Your task to perform on an android device: remove spam from my inbox in the gmail app Image 0: 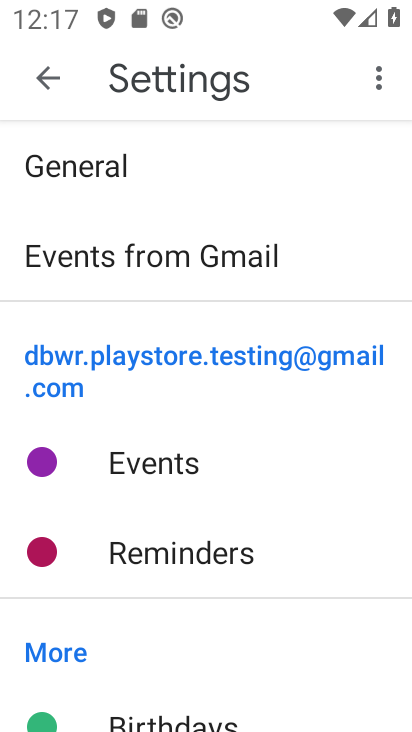
Step 0: press back button
Your task to perform on an android device: remove spam from my inbox in the gmail app Image 1: 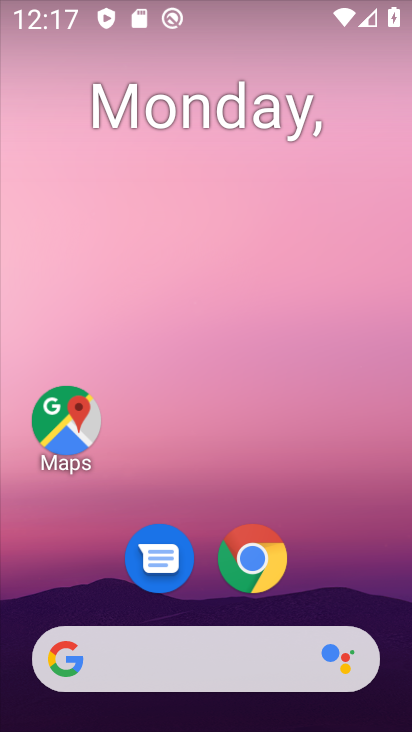
Step 1: drag from (353, 491) to (247, 14)
Your task to perform on an android device: remove spam from my inbox in the gmail app Image 2: 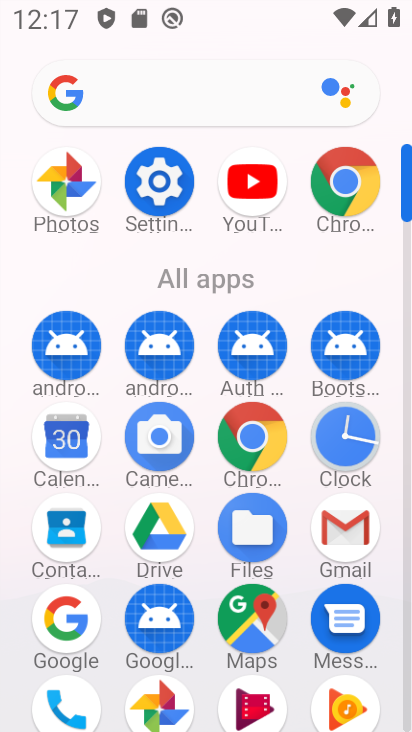
Step 2: drag from (17, 587) to (27, 271)
Your task to perform on an android device: remove spam from my inbox in the gmail app Image 3: 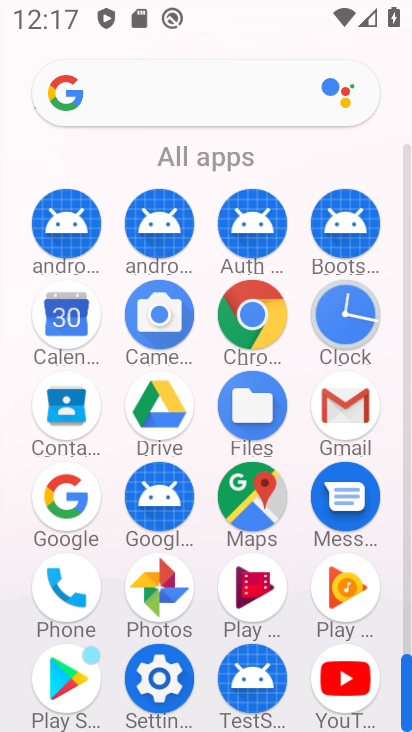
Step 3: click (345, 403)
Your task to perform on an android device: remove spam from my inbox in the gmail app Image 4: 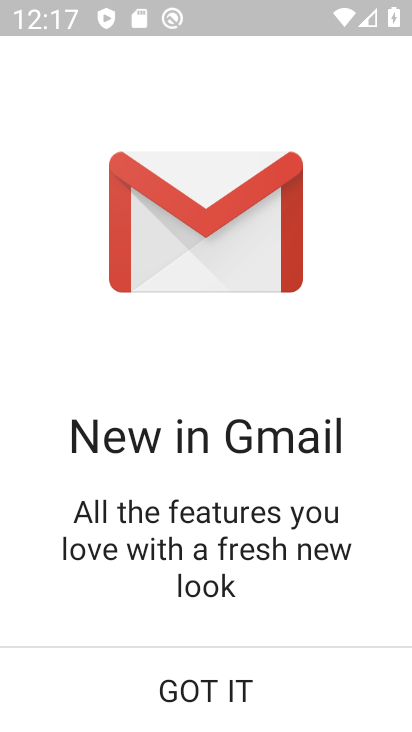
Step 4: click (219, 676)
Your task to perform on an android device: remove spam from my inbox in the gmail app Image 5: 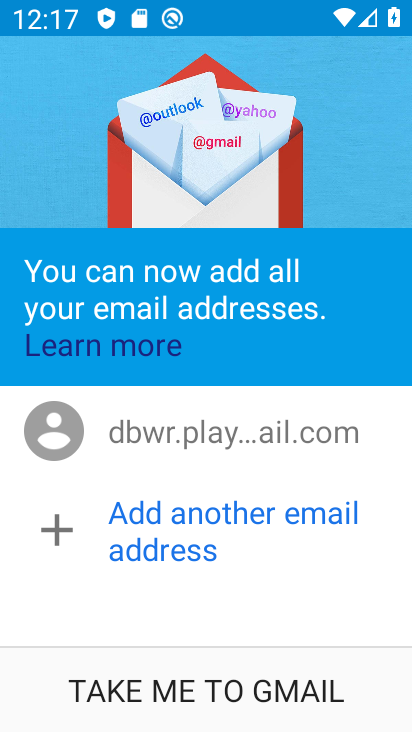
Step 5: click (219, 707)
Your task to perform on an android device: remove spam from my inbox in the gmail app Image 6: 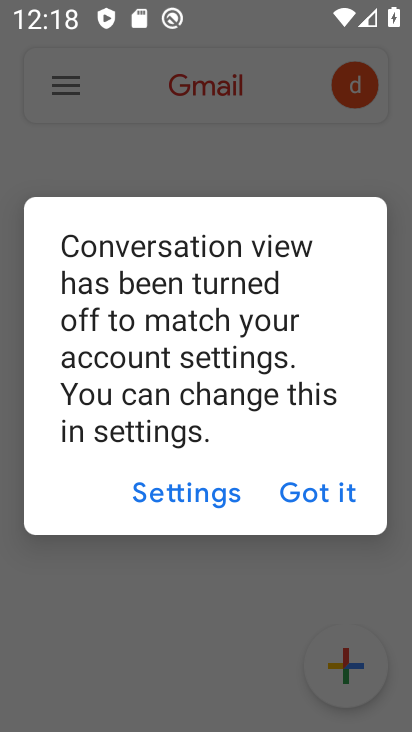
Step 6: click (345, 499)
Your task to perform on an android device: remove spam from my inbox in the gmail app Image 7: 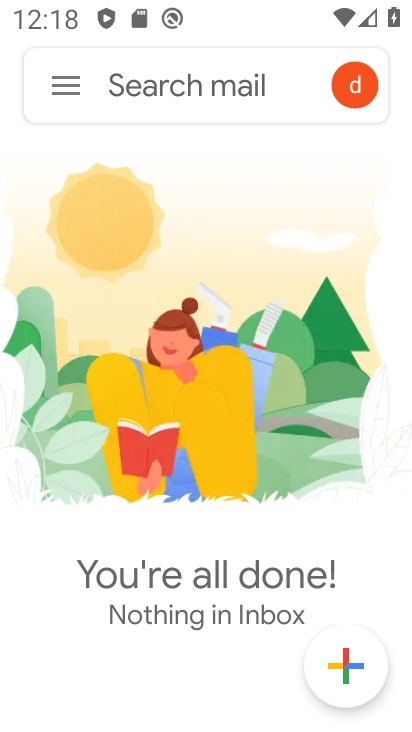
Step 7: click (62, 78)
Your task to perform on an android device: remove spam from my inbox in the gmail app Image 8: 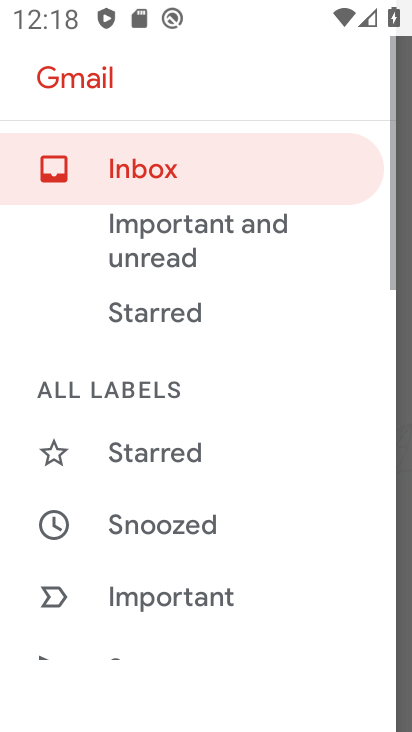
Step 8: drag from (245, 578) to (243, 183)
Your task to perform on an android device: remove spam from my inbox in the gmail app Image 9: 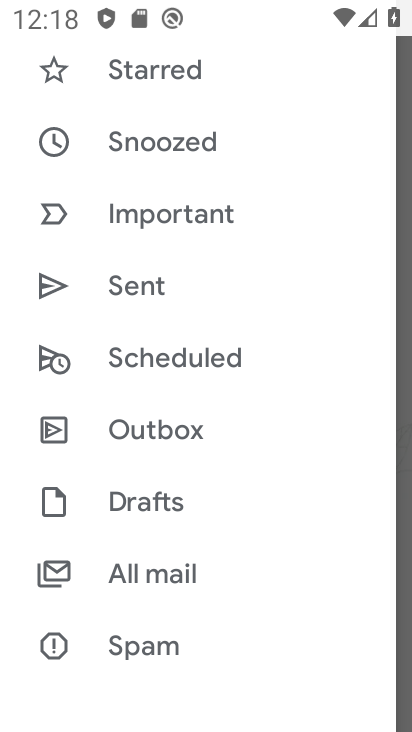
Step 9: drag from (238, 636) to (283, 152)
Your task to perform on an android device: remove spam from my inbox in the gmail app Image 10: 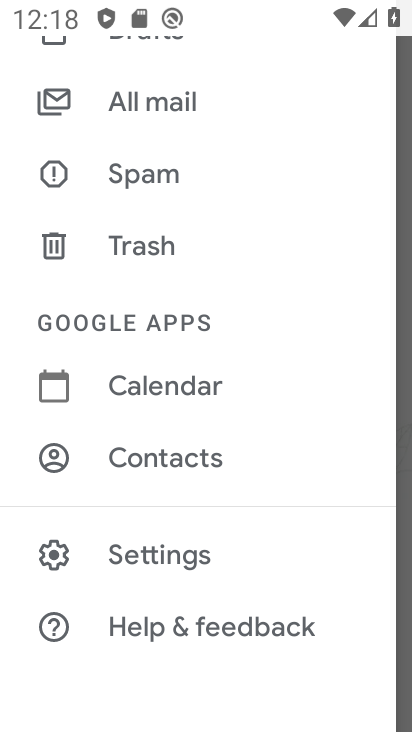
Step 10: click (190, 554)
Your task to perform on an android device: remove spam from my inbox in the gmail app Image 11: 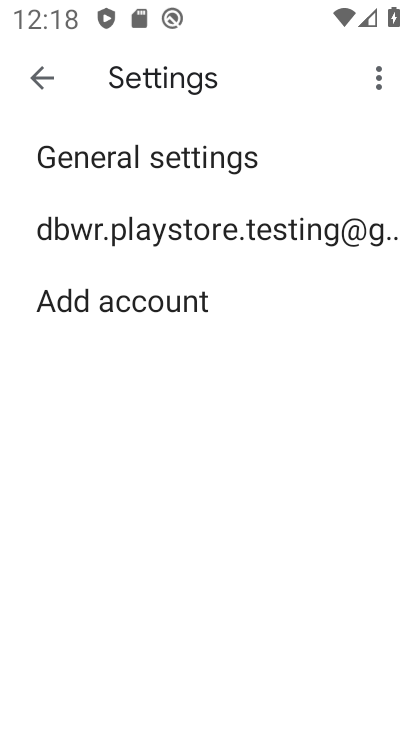
Step 11: click (218, 224)
Your task to perform on an android device: remove spam from my inbox in the gmail app Image 12: 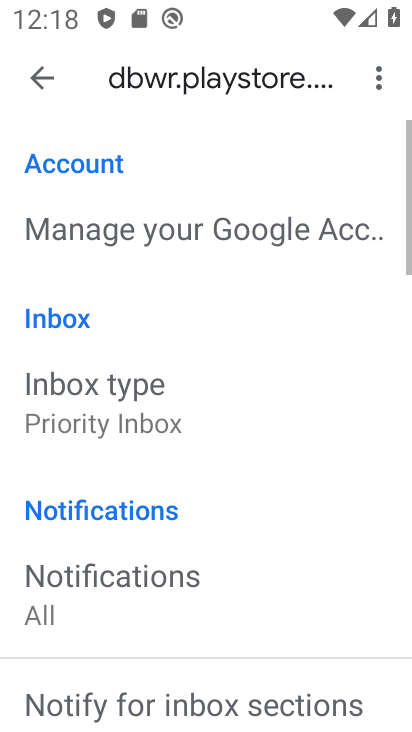
Step 12: drag from (213, 630) to (273, 252)
Your task to perform on an android device: remove spam from my inbox in the gmail app Image 13: 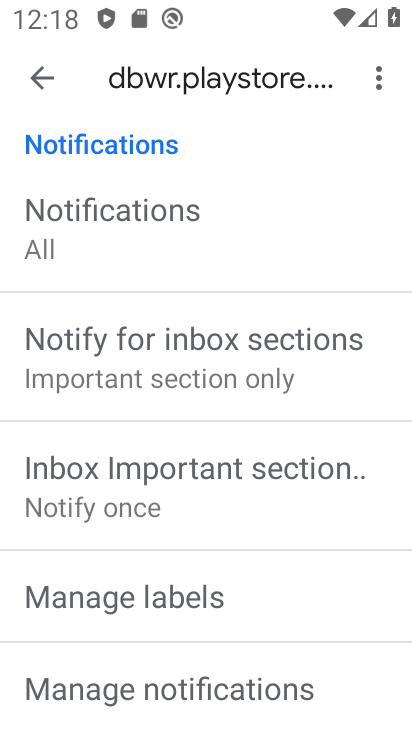
Step 13: drag from (268, 402) to (268, 223)
Your task to perform on an android device: remove spam from my inbox in the gmail app Image 14: 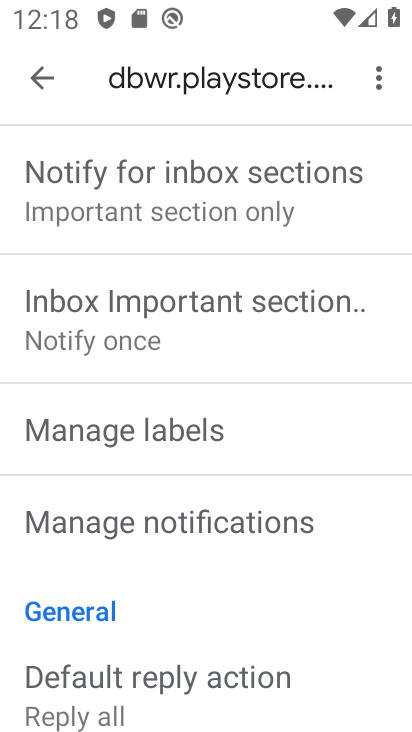
Step 14: drag from (238, 585) to (247, 175)
Your task to perform on an android device: remove spam from my inbox in the gmail app Image 15: 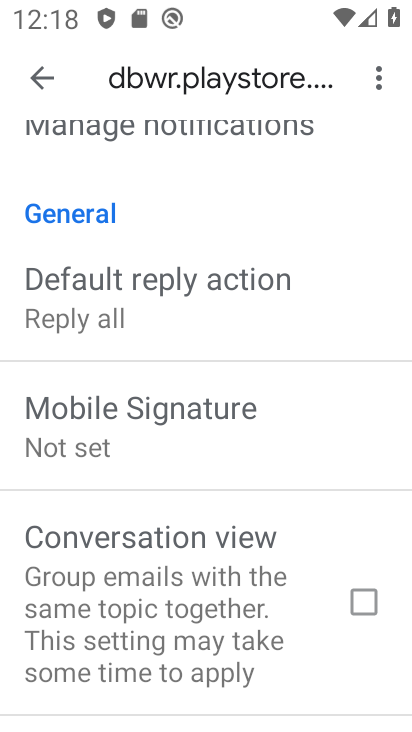
Step 15: drag from (228, 587) to (262, 155)
Your task to perform on an android device: remove spam from my inbox in the gmail app Image 16: 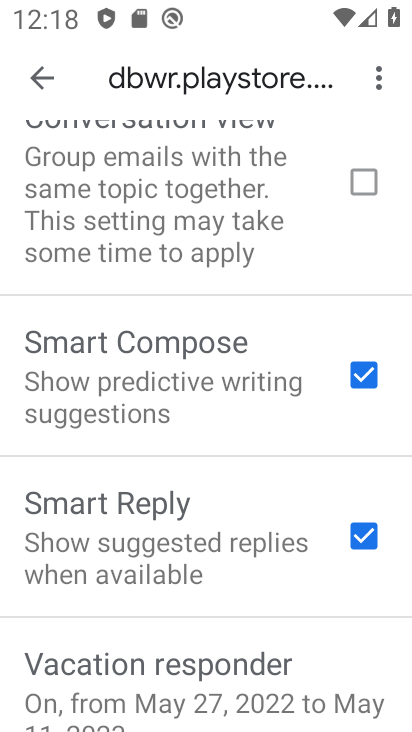
Step 16: drag from (227, 605) to (255, 185)
Your task to perform on an android device: remove spam from my inbox in the gmail app Image 17: 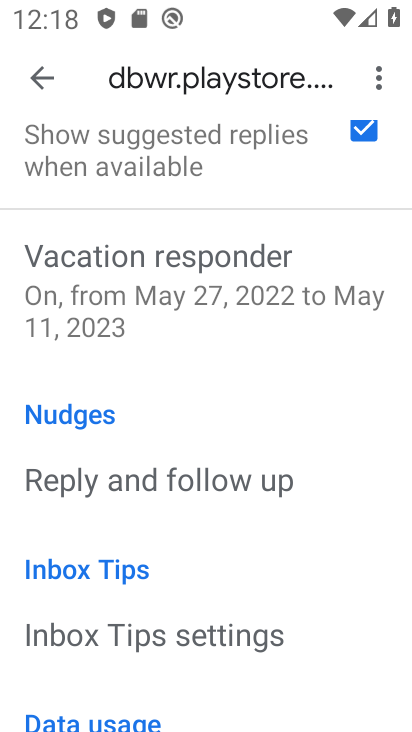
Step 17: drag from (239, 580) to (276, 148)
Your task to perform on an android device: remove spam from my inbox in the gmail app Image 18: 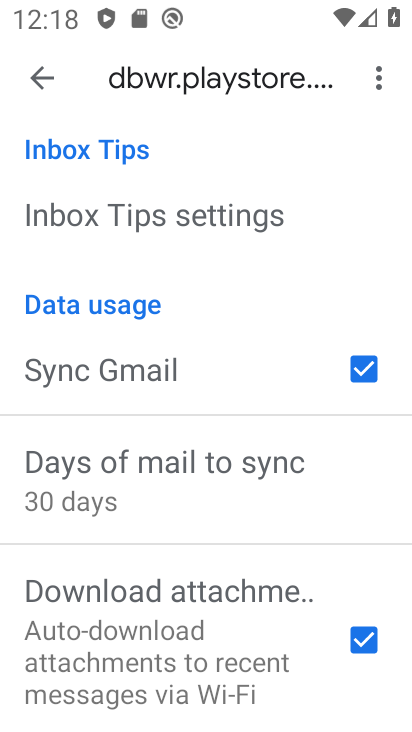
Step 18: drag from (225, 581) to (225, 141)
Your task to perform on an android device: remove spam from my inbox in the gmail app Image 19: 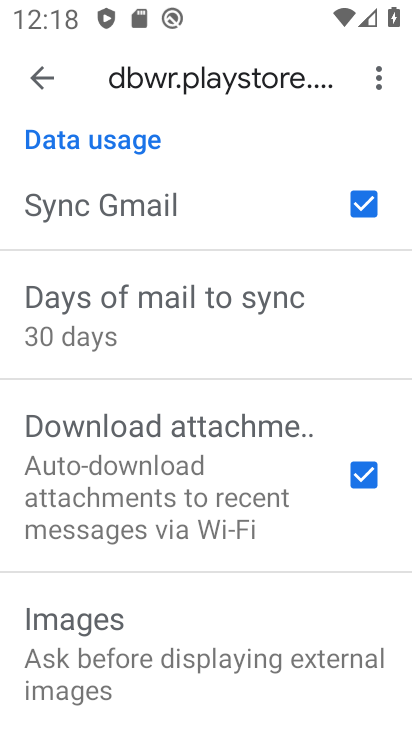
Step 19: drag from (205, 574) to (235, 205)
Your task to perform on an android device: remove spam from my inbox in the gmail app Image 20: 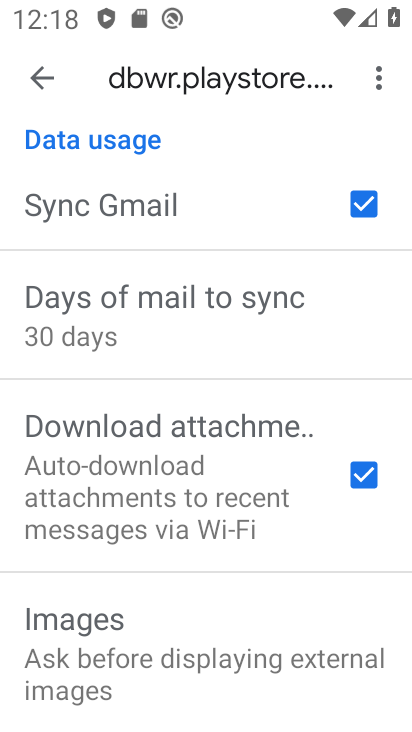
Step 20: drag from (282, 237) to (269, 705)
Your task to perform on an android device: remove spam from my inbox in the gmail app Image 21: 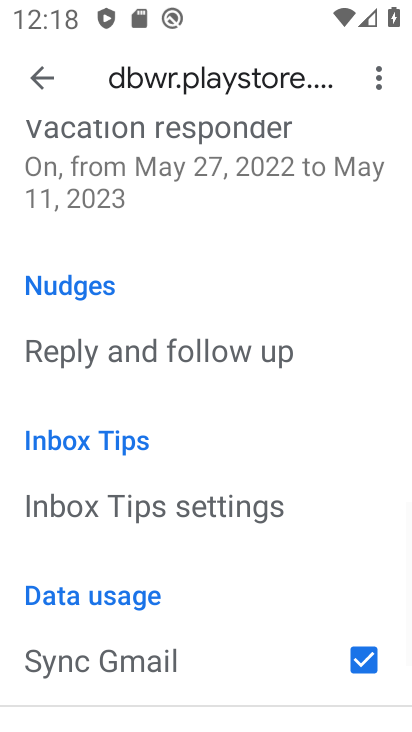
Step 21: drag from (242, 173) to (257, 586)
Your task to perform on an android device: remove spam from my inbox in the gmail app Image 22: 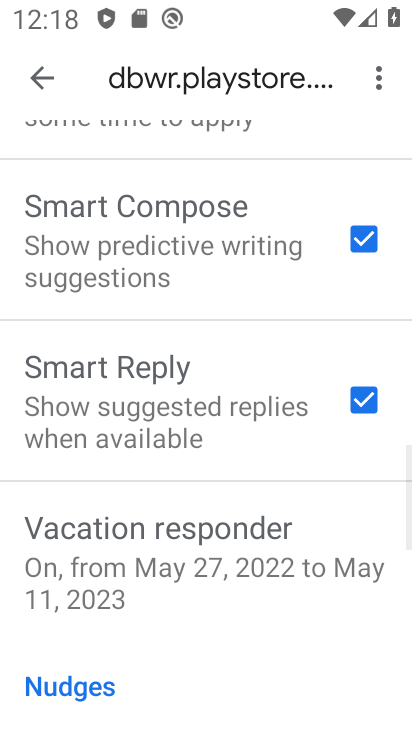
Step 22: drag from (227, 149) to (250, 604)
Your task to perform on an android device: remove spam from my inbox in the gmail app Image 23: 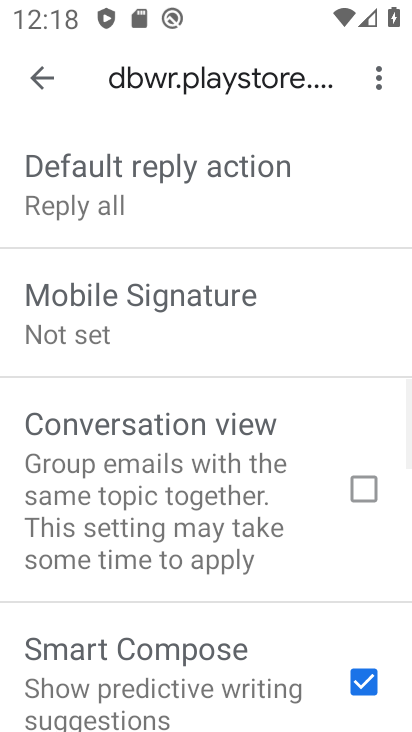
Step 23: drag from (205, 170) to (219, 525)
Your task to perform on an android device: remove spam from my inbox in the gmail app Image 24: 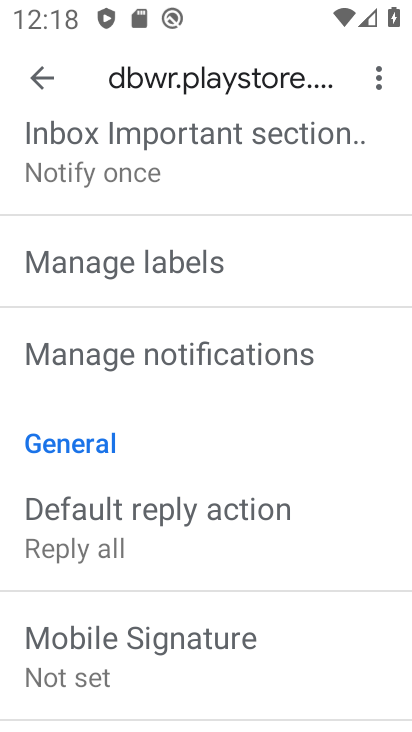
Step 24: drag from (271, 223) to (271, 652)
Your task to perform on an android device: remove spam from my inbox in the gmail app Image 25: 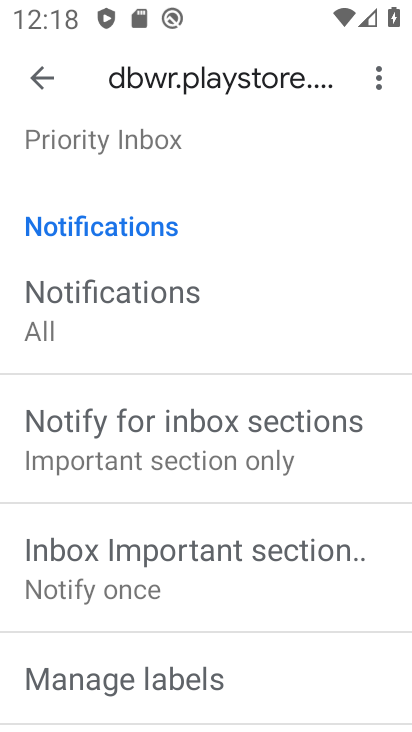
Step 25: drag from (241, 182) to (251, 591)
Your task to perform on an android device: remove spam from my inbox in the gmail app Image 26: 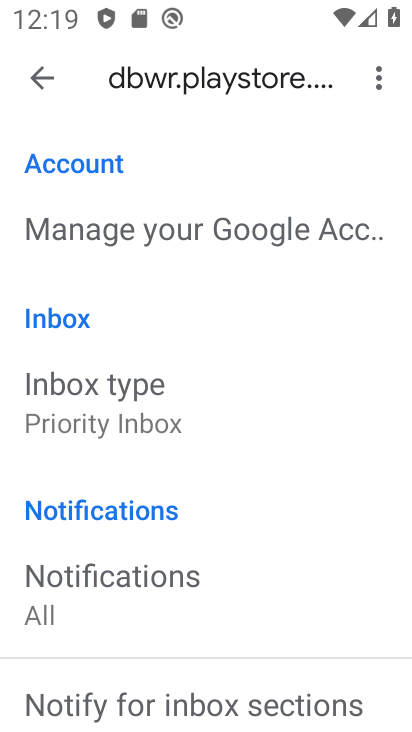
Step 26: drag from (236, 598) to (249, 266)
Your task to perform on an android device: remove spam from my inbox in the gmail app Image 27: 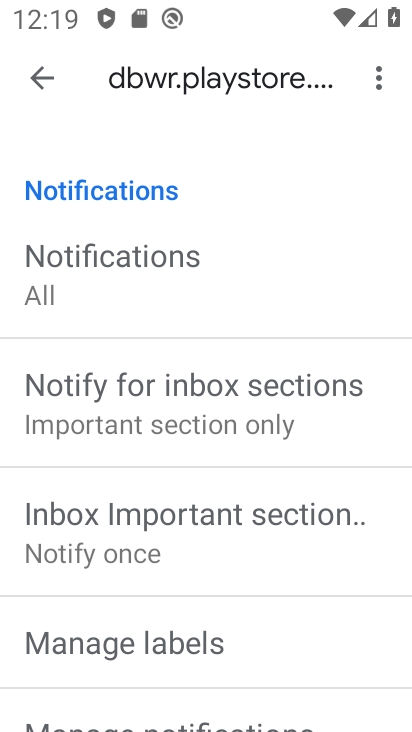
Step 27: drag from (261, 204) to (316, 594)
Your task to perform on an android device: remove spam from my inbox in the gmail app Image 28: 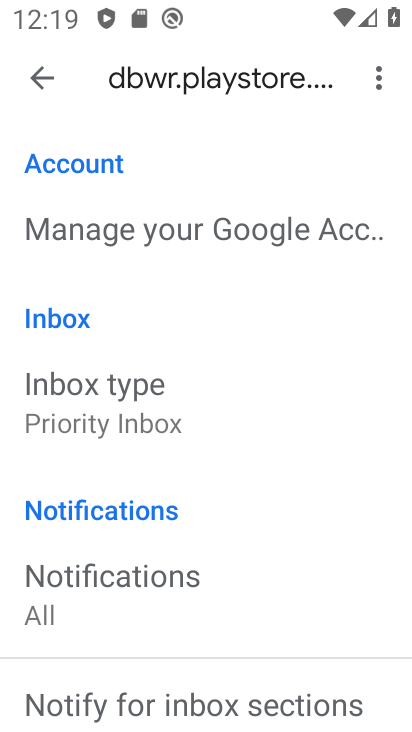
Step 28: drag from (291, 551) to (273, 240)
Your task to perform on an android device: remove spam from my inbox in the gmail app Image 29: 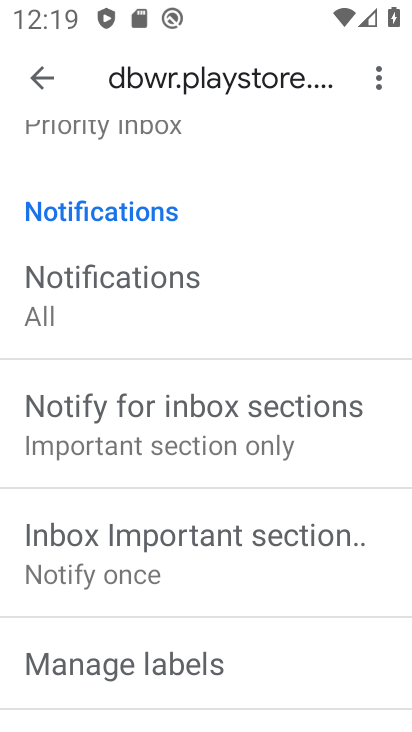
Step 29: drag from (291, 486) to (288, 203)
Your task to perform on an android device: remove spam from my inbox in the gmail app Image 30: 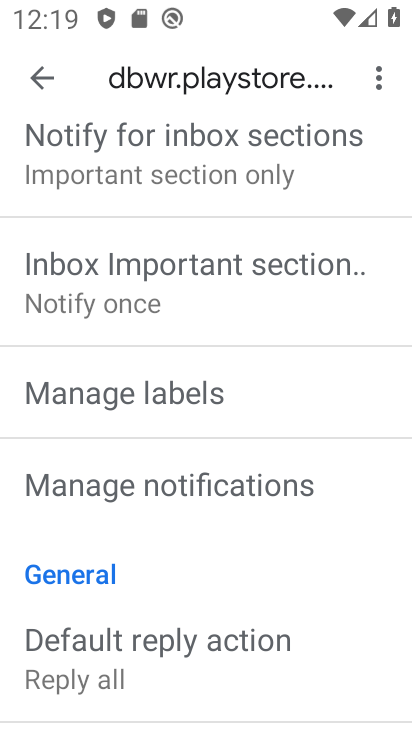
Step 30: drag from (288, 205) to (296, 606)
Your task to perform on an android device: remove spam from my inbox in the gmail app Image 31: 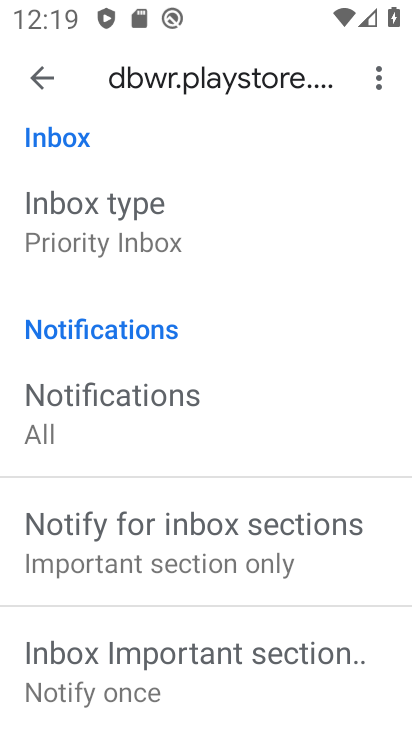
Step 31: drag from (286, 563) to (298, 188)
Your task to perform on an android device: remove spam from my inbox in the gmail app Image 32: 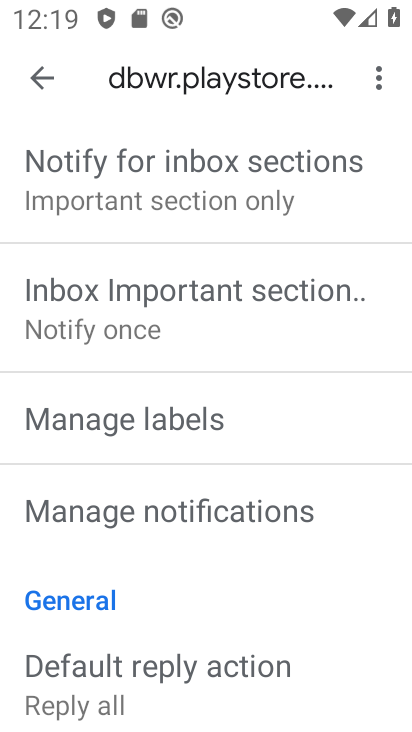
Step 32: drag from (326, 604) to (302, 233)
Your task to perform on an android device: remove spam from my inbox in the gmail app Image 33: 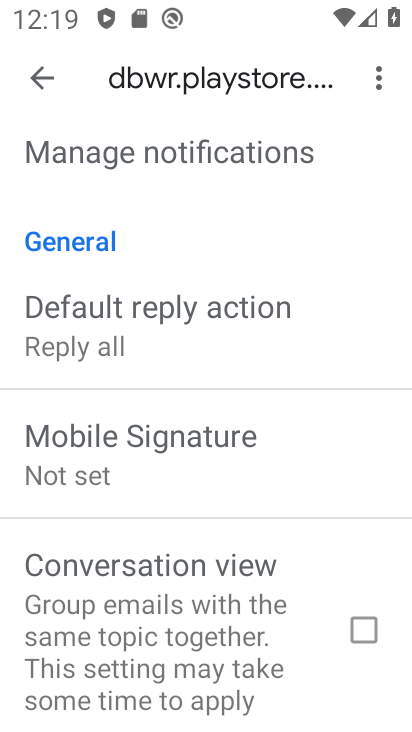
Step 33: drag from (302, 560) to (266, 188)
Your task to perform on an android device: remove spam from my inbox in the gmail app Image 34: 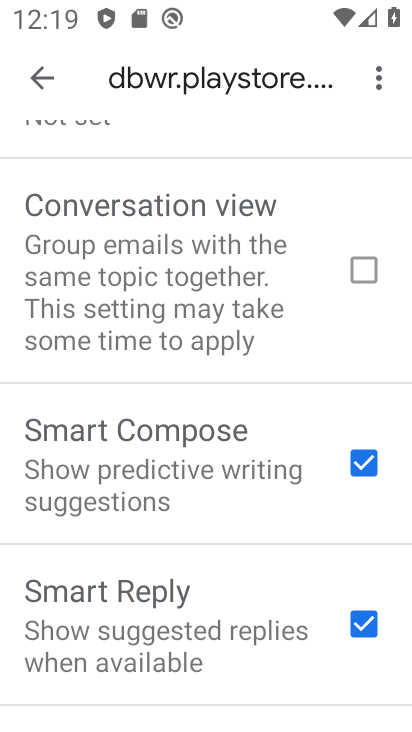
Step 34: drag from (243, 679) to (242, 236)
Your task to perform on an android device: remove spam from my inbox in the gmail app Image 35: 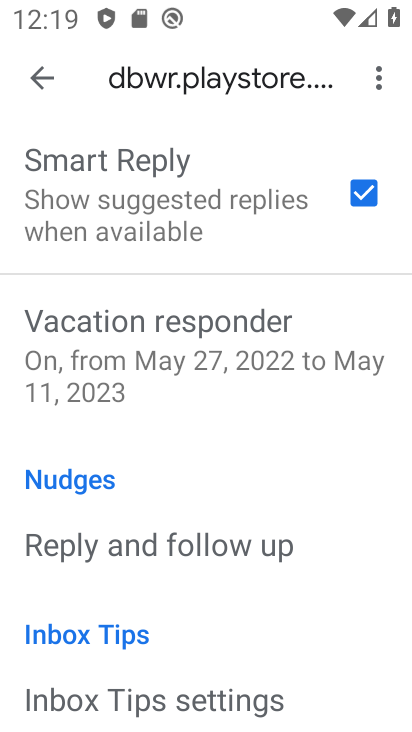
Step 35: drag from (235, 640) to (244, 237)
Your task to perform on an android device: remove spam from my inbox in the gmail app Image 36: 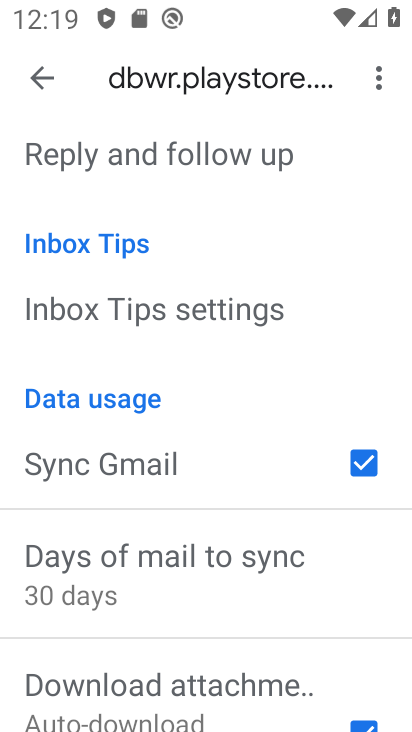
Step 36: drag from (252, 613) to (252, 226)
Your task to perform on an android device: remove spam from my inbox in the gmail app Image 37: 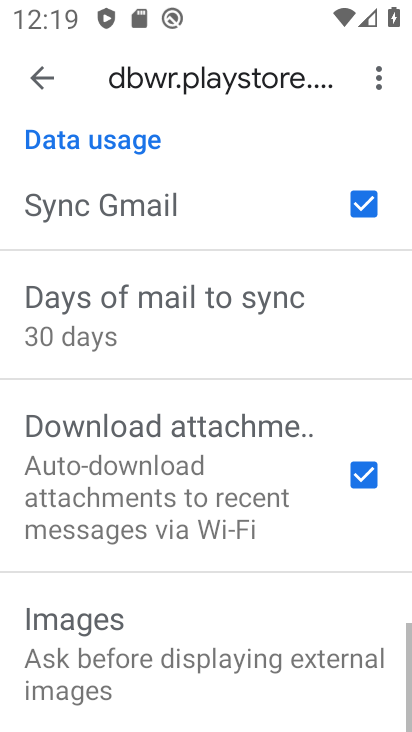
Step 37: drag from (239, 594) to (235, 241)
Your task to perform on an android device: remove spam from my inbox in the gmail app Image 38: 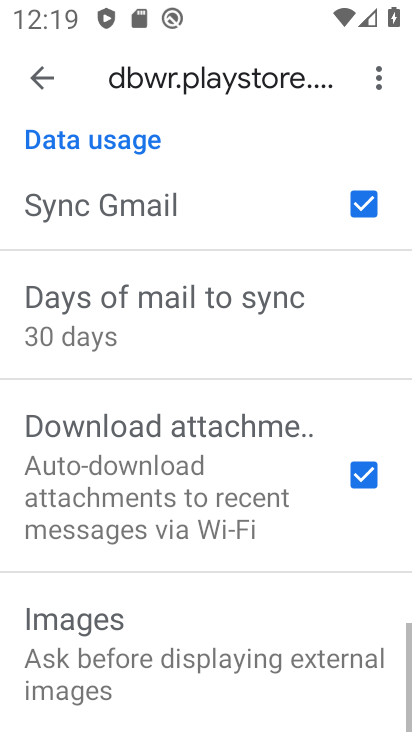
Step 38: drag from (223, 297) to (225, 693)
Your task to perform on an android device: remove spam from my inbox in the gmail app Image 39: 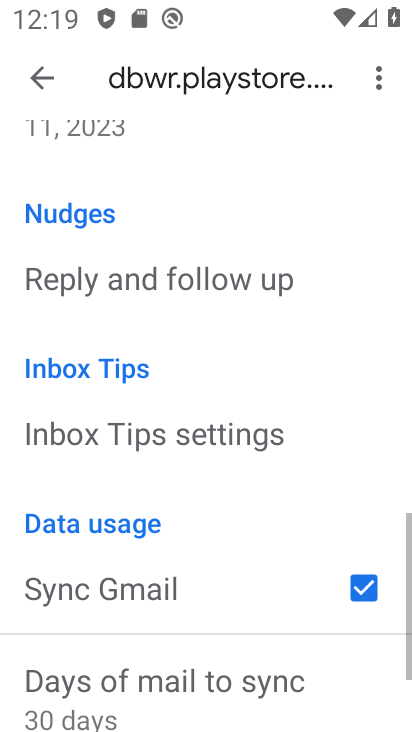
Step 39: drag from (255, 245) to (253, 639)
Your task to perform on an android device: remove spam from my inbox in the gmail app Image 40: 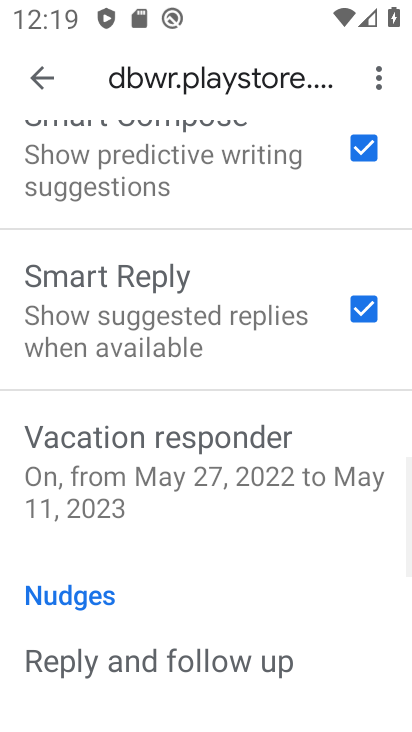
Step 40: drag from (235, 228) to (235, 271)
Your task to perform on an android device: remove spam from my inbox in the gmail app Image 41: 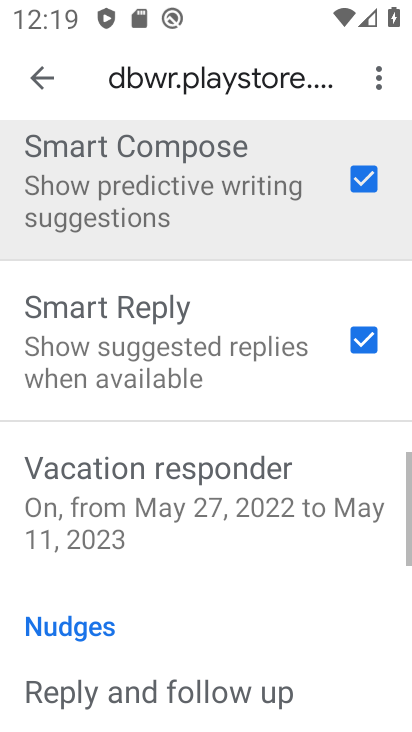
Step 41: click (234, 636)
Your task to perform on an android device: remove spam from my inbox in the gmail app Image 42: 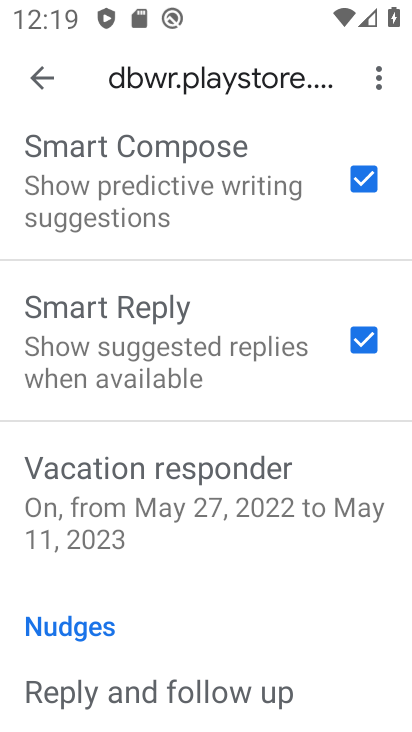
Step 42: drag from (219, 180) to (230, 285)
Your task to perform on an android device: remove spam from my inbox in the gmail app Image 43: 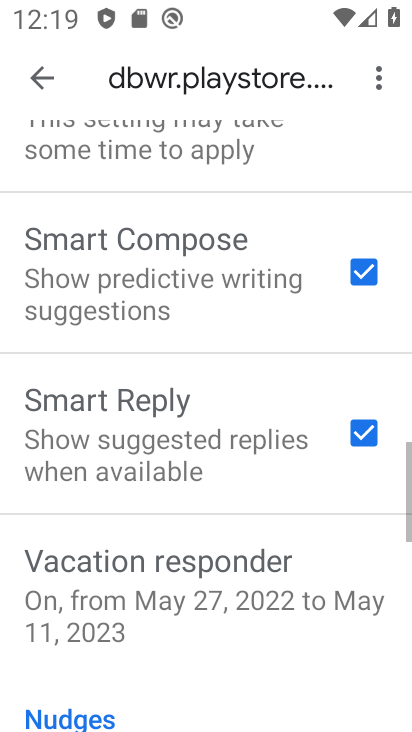
Step 43: click (245, 617)
Your task to perform on an android device: remove spam from my inbox in the gmail app Image 44: 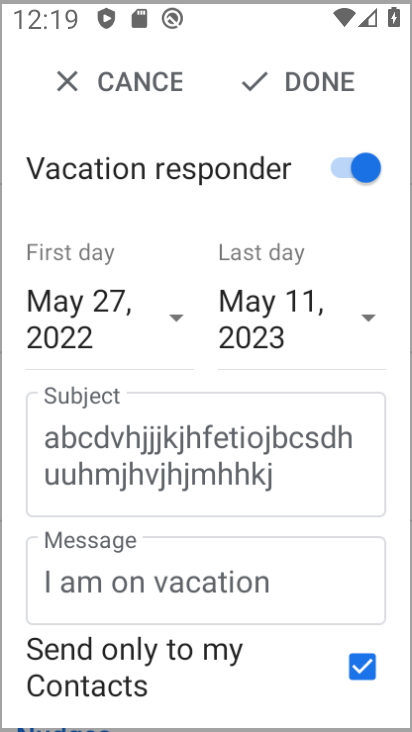
Step 44: drag from (219, 193) to (219, 325)
Your task to perform on an android device: remove spam from my inbox in the gmail app Image 45: 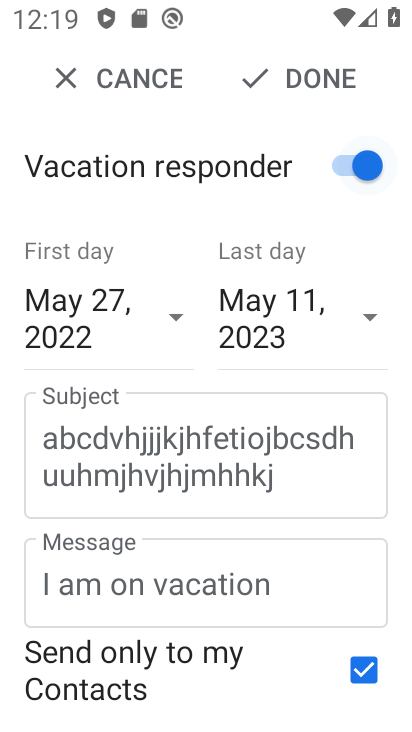
Step 45: click (219, 533)
Your task to perform on an android device: remove spam from my inbox in the gmail app Image 46: 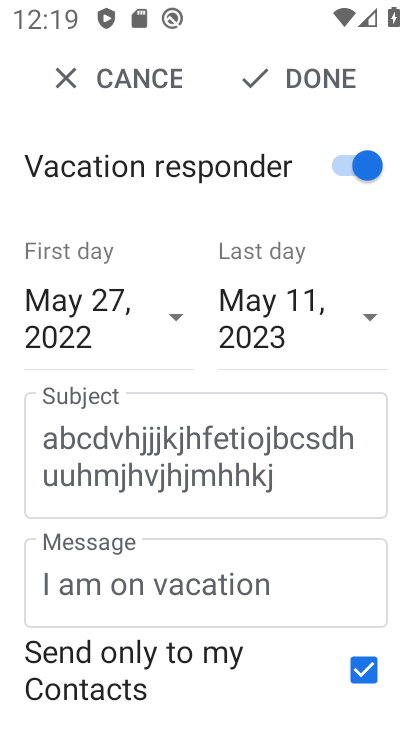
Step 46: click (67, 79)
Your task to perform on an android device: remove spam from my inbox in the gmail app Image 47: 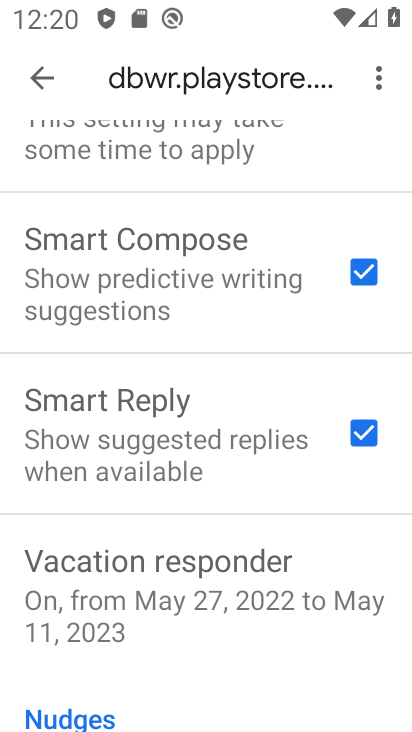
Step 47: click (37, 79)
Your task to perform on an android device: remove spam from my inbox in the gmail app Image 48: 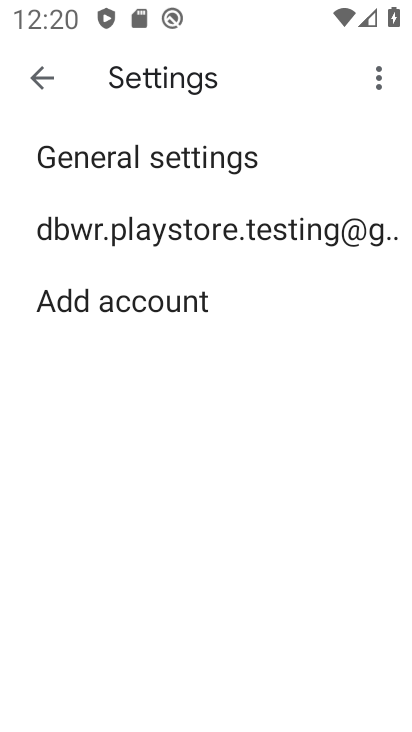
Step 48: click (49, 83)
Your task to perform on an android device: remove spam from my inbox in the gmail app Image 49: 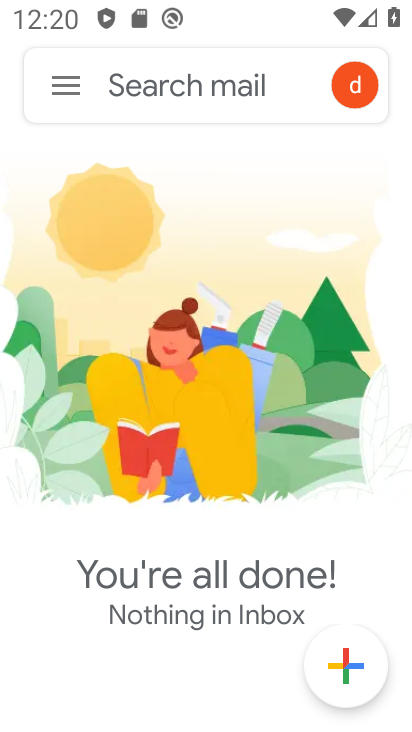
Step 49: click (57, 83)
Your task to perform on an android device: remove spam from my inbox in the gmail app Image 50: 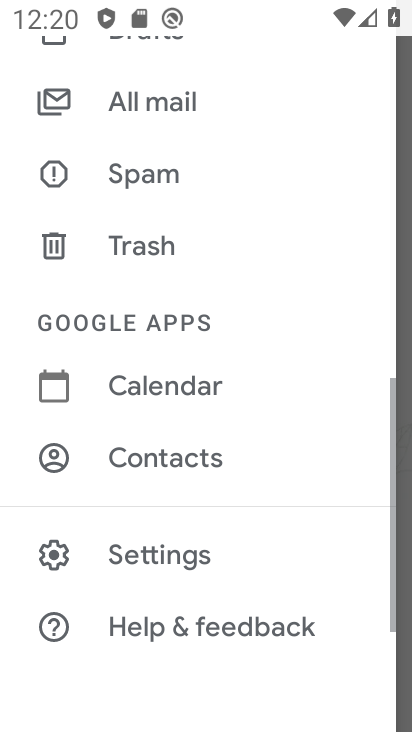
Step 50: drag from (265, 163) to (277, 616)
Your task to perform on an android device: remove spam from my inbox in the gmail app Image 51: 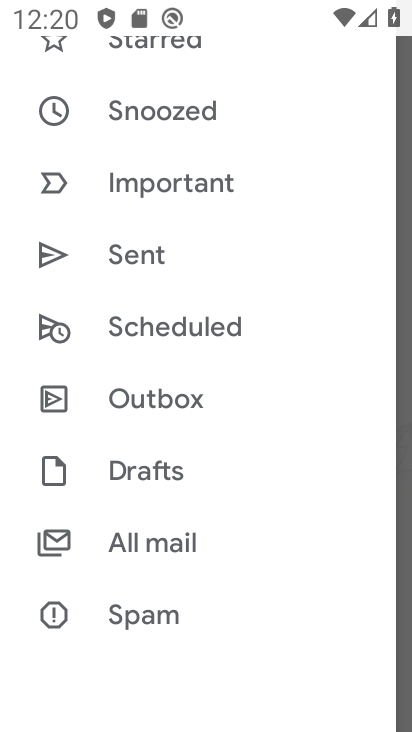
Step 51: click (150, 608)
Your task to perform on an android device: remove spam from my inbox in the gmail app Image 52: 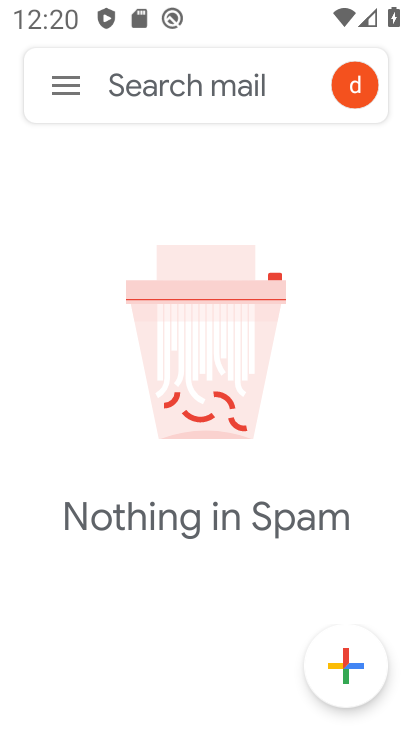
Step 52: task complete